Your task to perform on an android device: Look up the best rated video games on bestbuy.com Image 0: 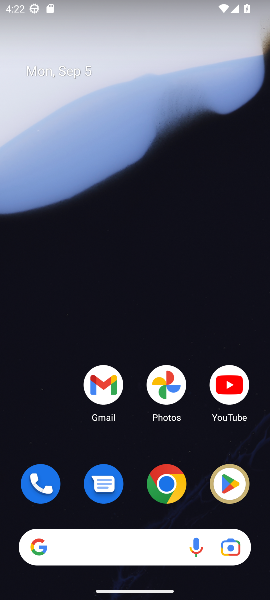
Step 0: click (165, 492)
Your task to perform on an android device: Look up the best rated video games on bestbuy.com Image 1: 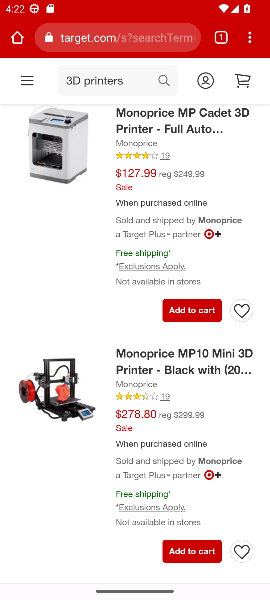
Step 1: click (142, 35)
Your task to perform on an android device: Look up the best rated video games on bestbuy.com Image 2: 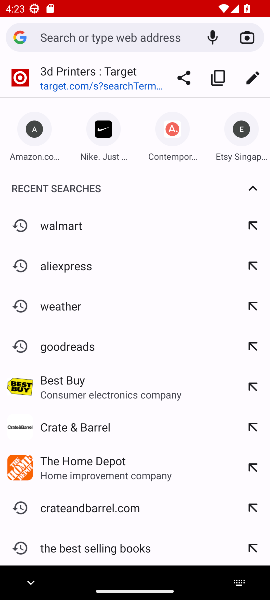
Step 2: type "bestbuy.com"
Your task to perform on an android device: Look up the best rated video games on bestbuy.com Image 3: 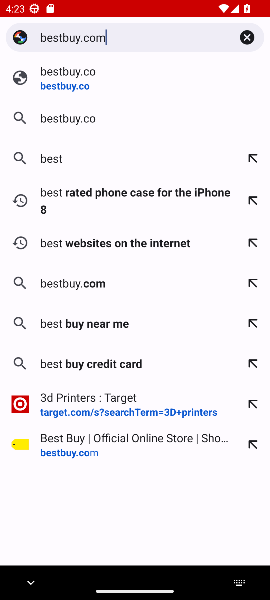
Step 3: press enter
Your task to perform on an android device: Look up the best rated video games on bestbuy.com Image 4: 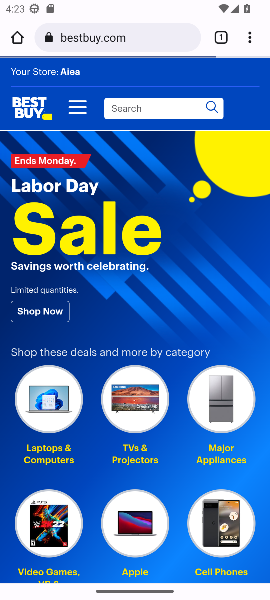
Step 4: click (158, 106)
Your task to perform on an android device: Look up the best rated video games on bestbuy.com Image 5: 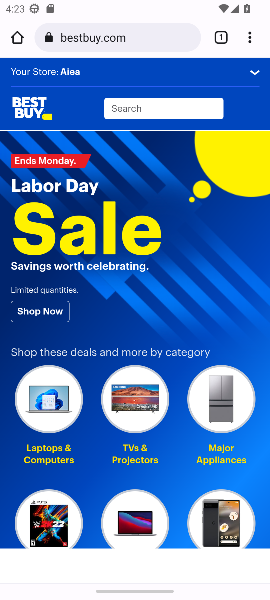
Step 5: click (140, 109)
Your task to perform on an android device: Look up the best rated video games on bestbuy.com Image 6: 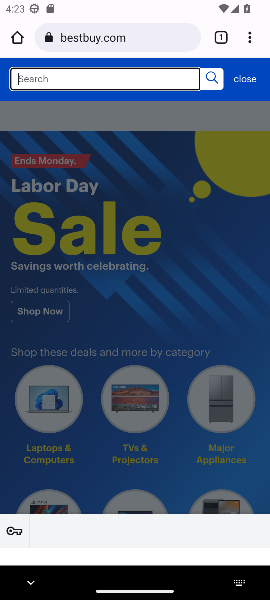
Step 6: press enter
Your task to perform on an android device: Look up the best rated video games on bestbuy.com Image 7: 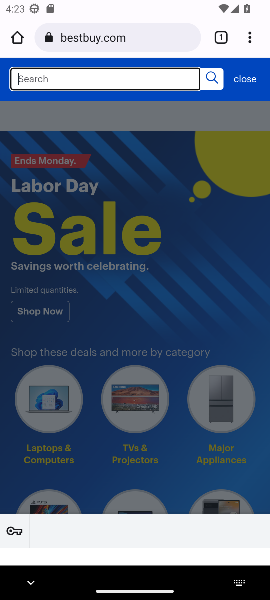
Step 7: type "video games"
Your task to perform on an android device: Look up the best rated video games on bestbuy.com Image 8: 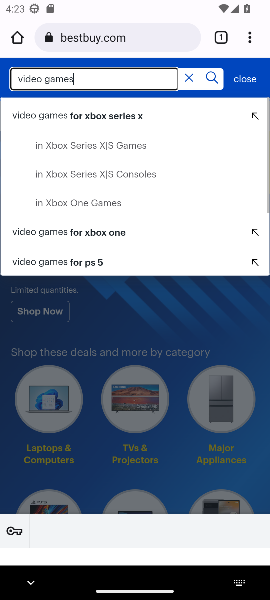
Step 8: click (209, 76)
Your task to perform on an android device: Look up the best rated video games on bestbuy.com Image 9: 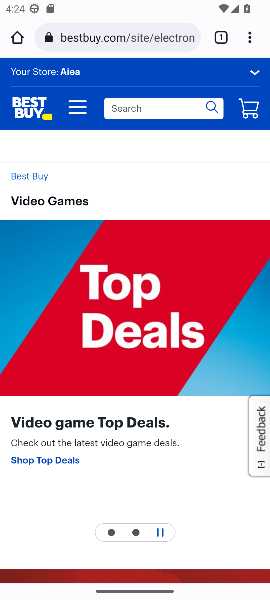
Step 9: task complete